Your task to perform on an android device: Go to CNN.com Image 0: 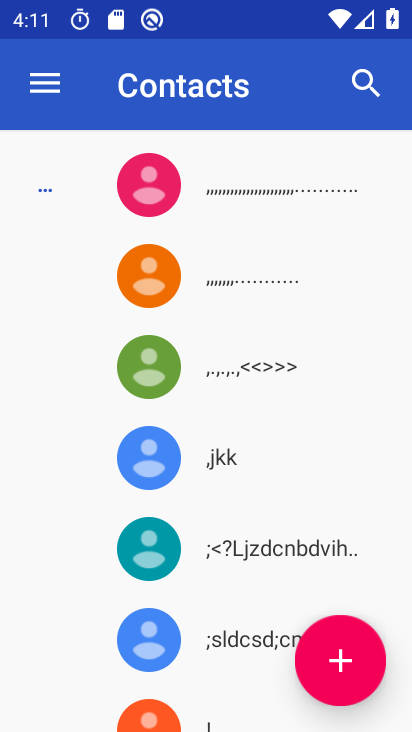
Step 0: press home button
Your task to perform on an android device: Go to CNN.com Image 1: 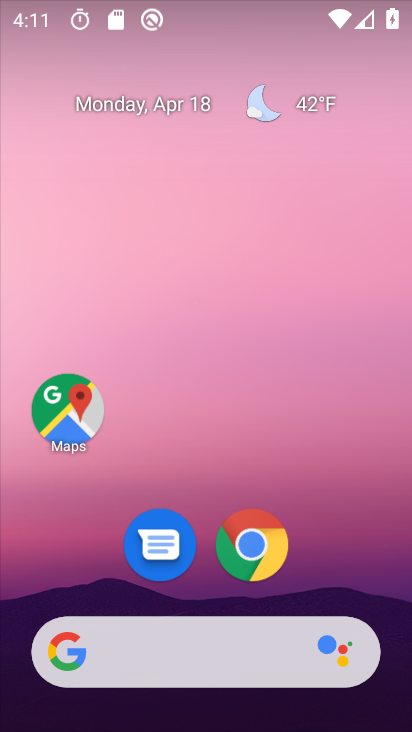
Step 1: drag from (332, 550) to (346, 86)
Your task to perform on an android device: Go to CNN.com Image 2: 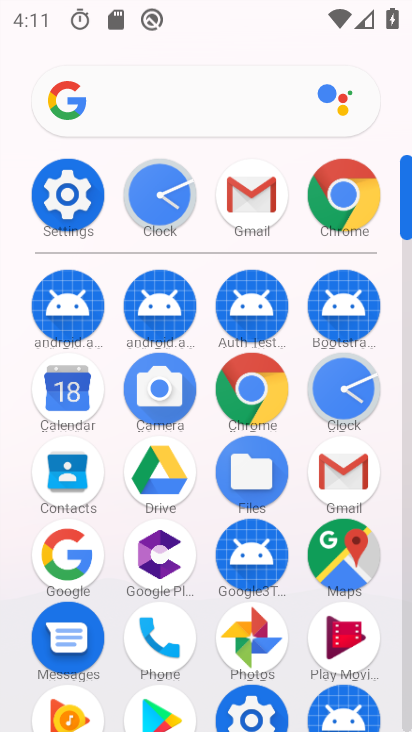
Step 2: click (248, 391)
Your task to perform on an android device: Go to CNN.com Image 3: 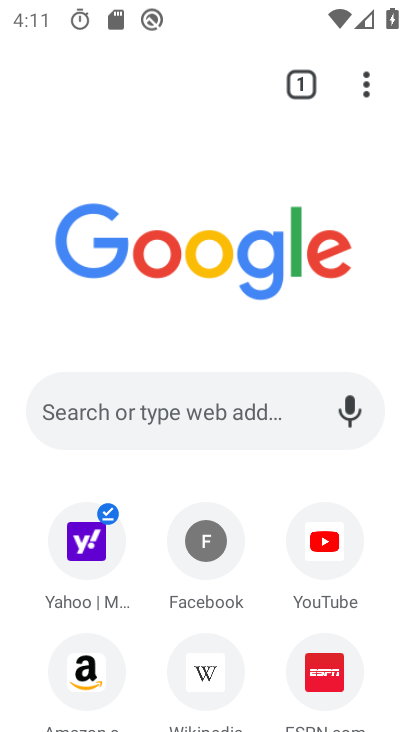
Step 3: click (236, 413)
Your task to perform on an android device: Go to CNN.com Image 4: 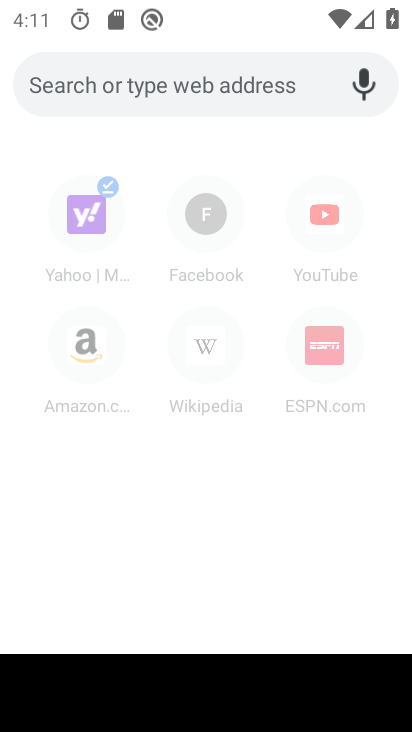
Step 4: type "cnn.com"
Your task to perform on an android device: Go to CNN.com Image 5: 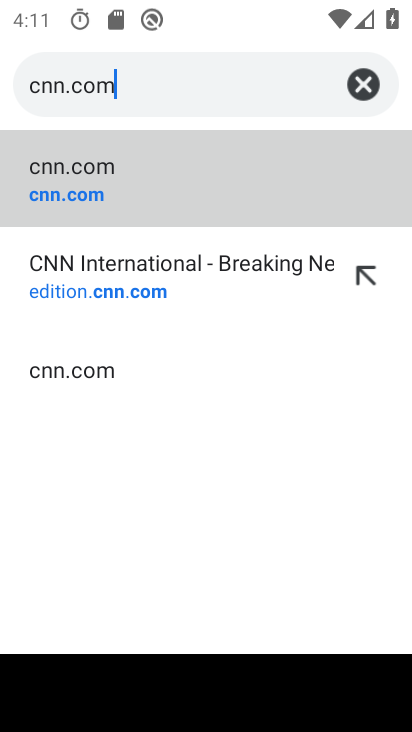
Step 5: click (166, 182)
Your task to perform on an android device: Go to CNN.com Image 6: 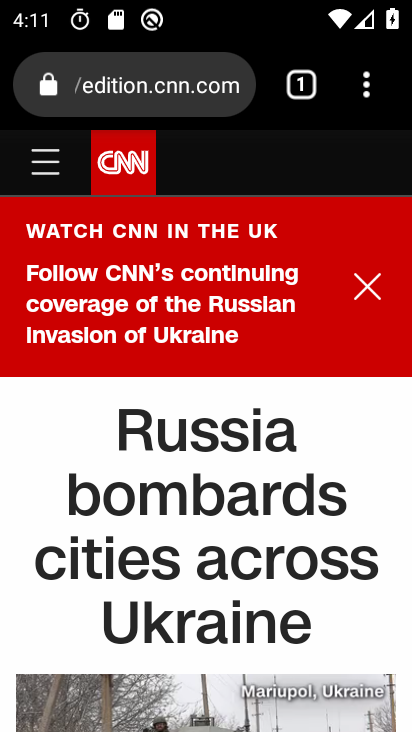
Step 6: task complete